Your task to perform on an android device: Open wifi settings Image 0: 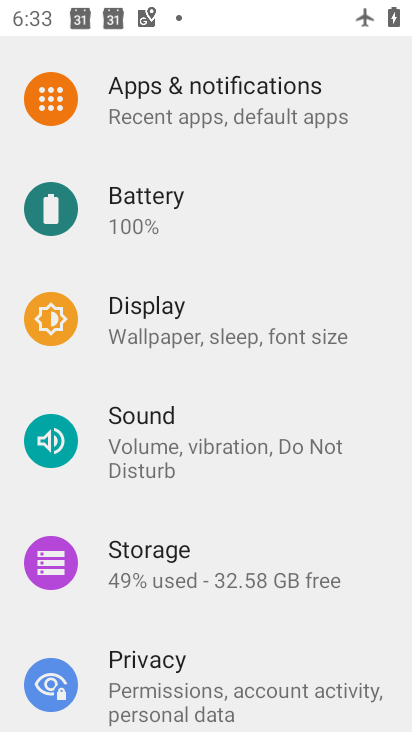
Step 0: press home button
Your task to perform on an android device: Open wifi settings Image 1: 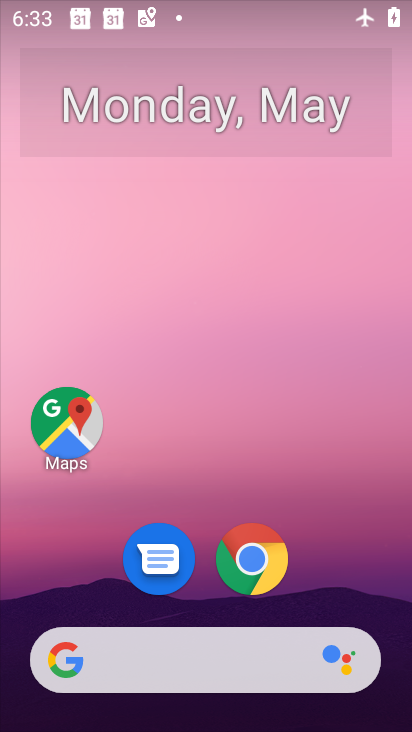
Step 1: drag from (391, 646) to (284, 167)
Your task to perform on an android device: Open wifi settings Image 2: 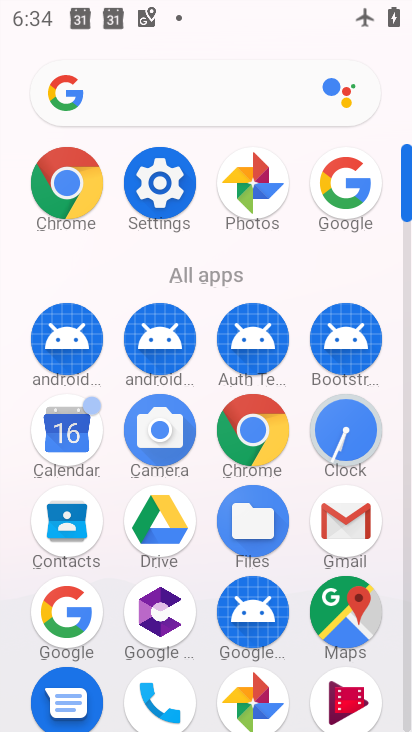
Step 2: click (164, 180)
Your task to perform on an android device: Open wifi settings Image 3: 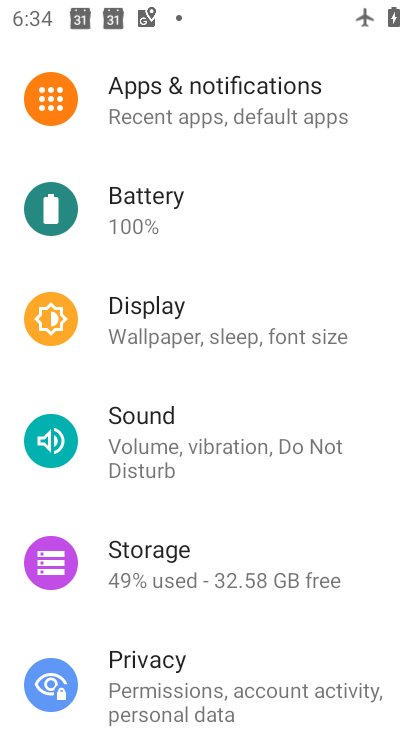
Step 3: drag from (195, 110) to (218, 576)
Your task to perform on an android device: Open wifi settings Image 4: 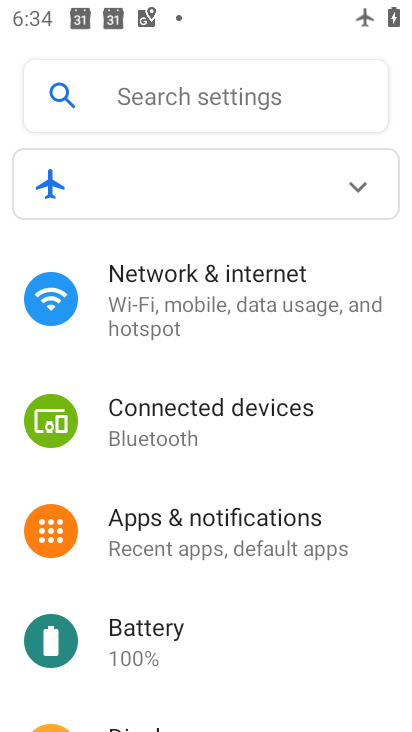
Step 4: click (187, 283)
Your task to perform on an android device: Open wifi settings Image 5: 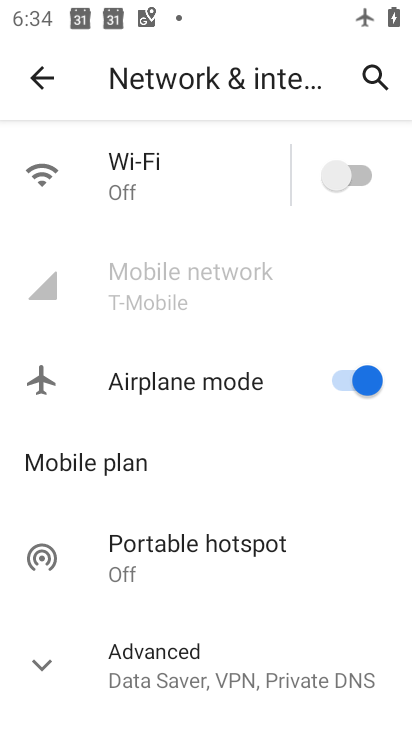
Step 5: click (117, 174)
Your task to perform on an android device: Open wifi settings Image 6: 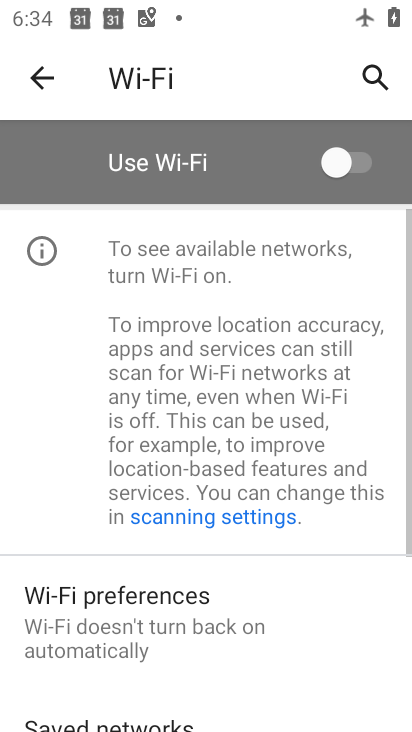
Step 6: task complete